Your task to perform on an android device: Open notification settings Image 0: 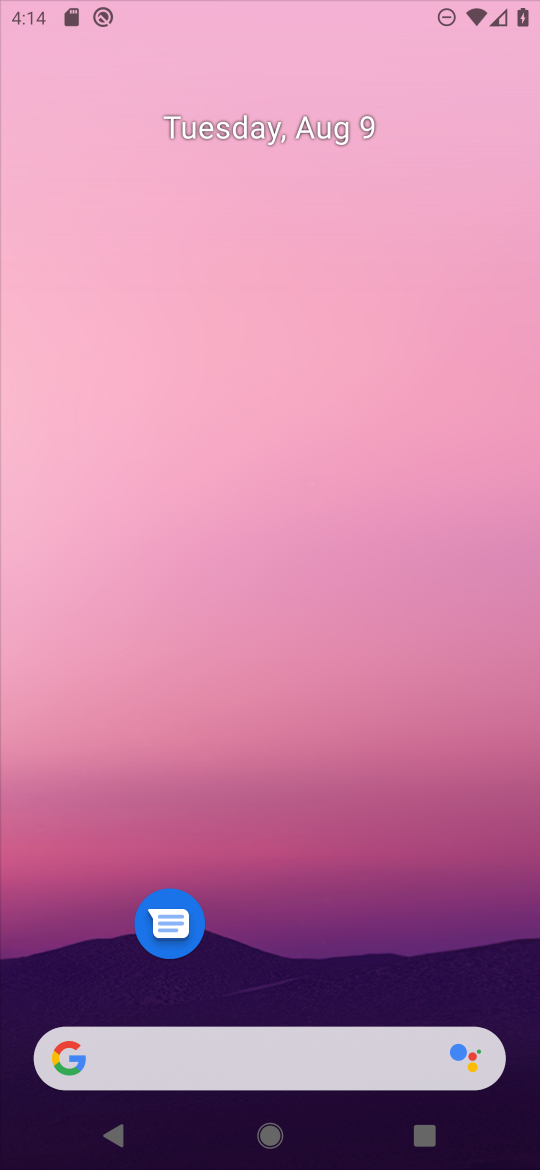
Step 0: drag from (318, 805) to (430, 0)
Your task to perform on an android device: Open notification settings Image 1: 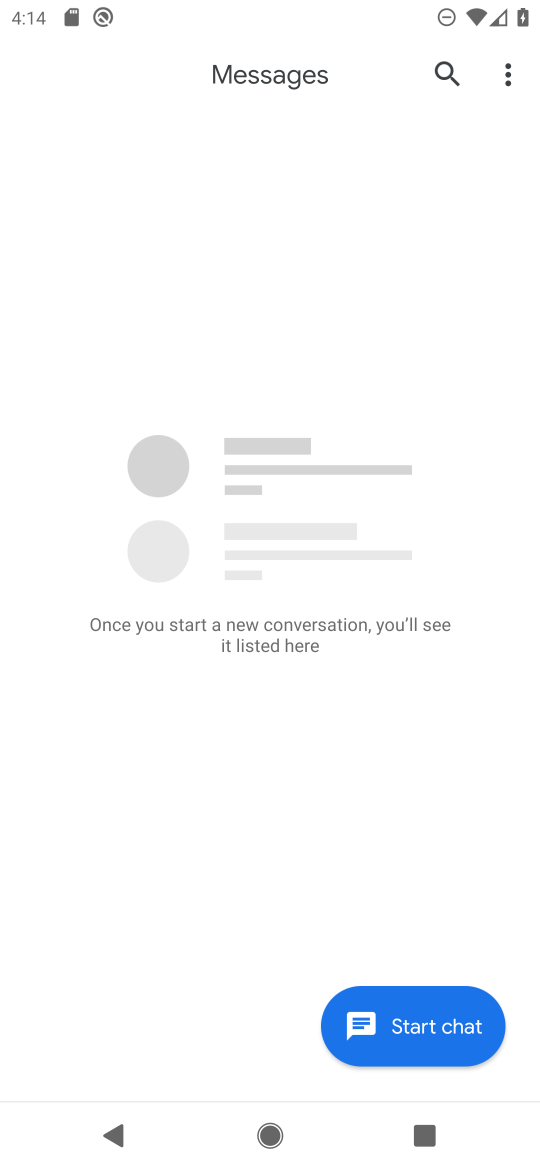
Step 1: press back button
Your task to perform on an android device: Open notification settings Image 2: 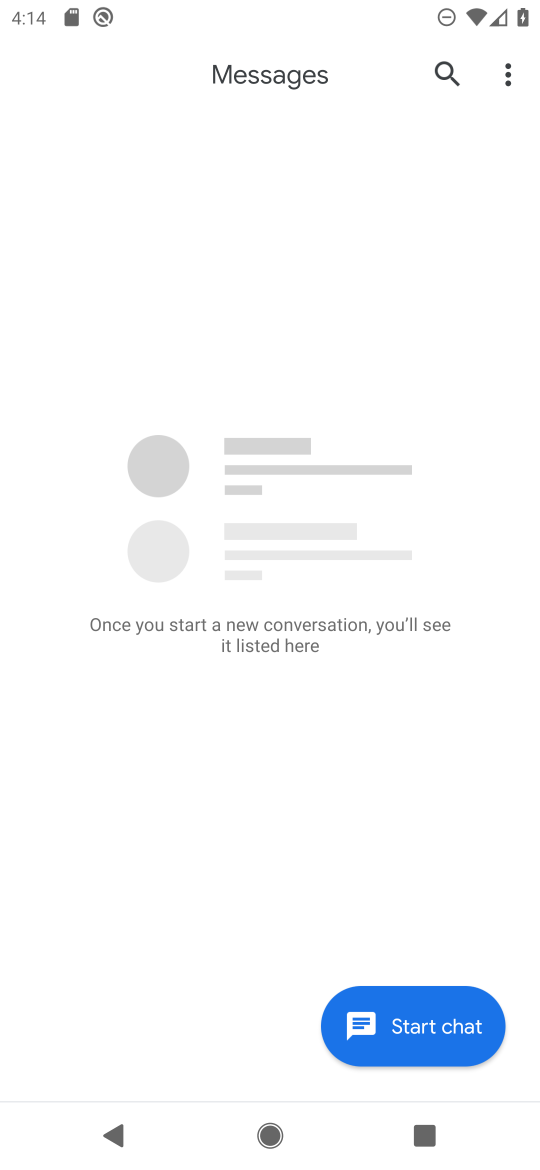
Step 2: drag from (430, 0) to (529, 488)
Your task to perform on an android device: Open notification settings Image 3: 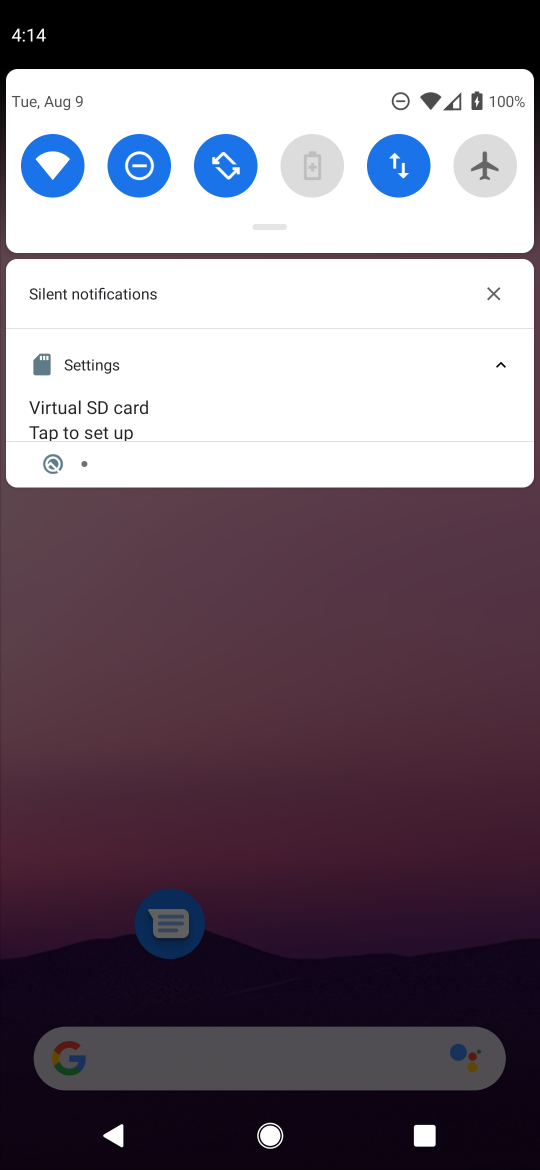
Step 3: drag from (280, 939) to (428, 35)
Your task to perform on an android device: Open notification settings Image 4: 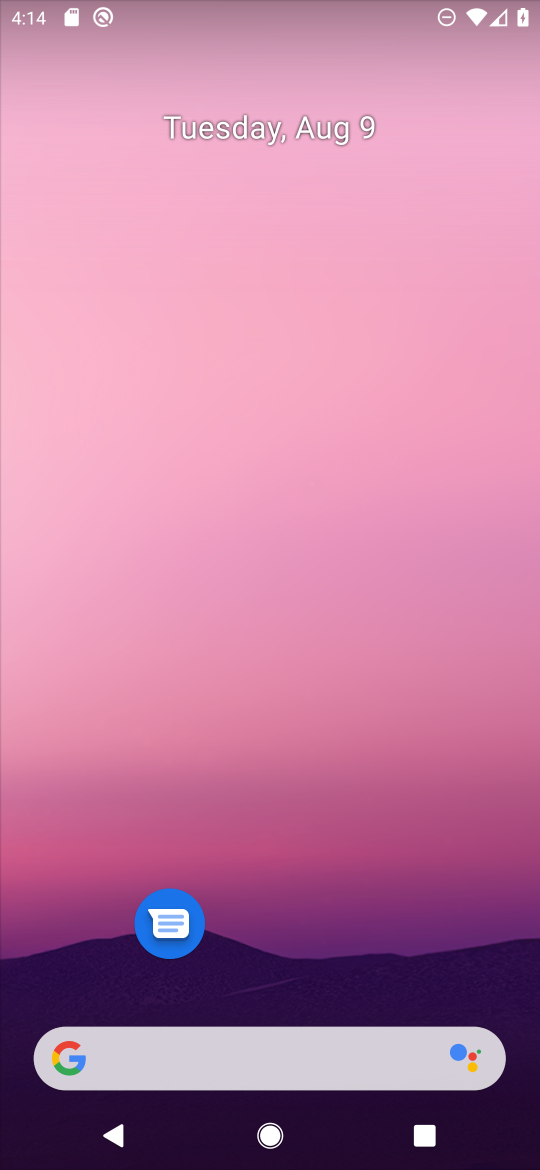
Step 4: drag from (365, 947) to (471, 82)
Your task to perform on an android device: Open notification settings Image 5: 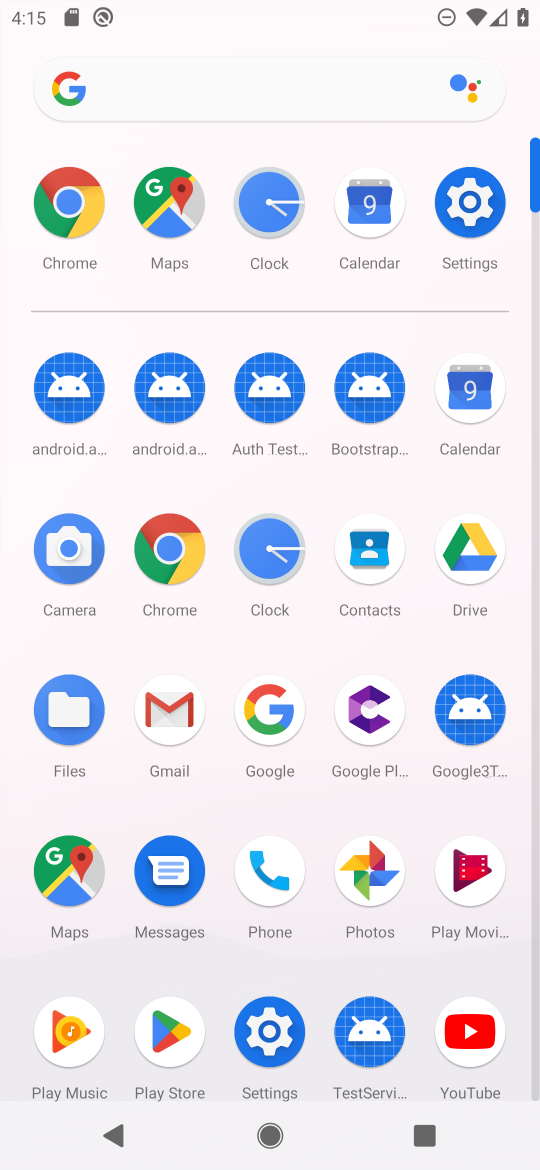
Step 5: click (486, 234)
Your task to perform on an android device: Open notification settings Image 6: 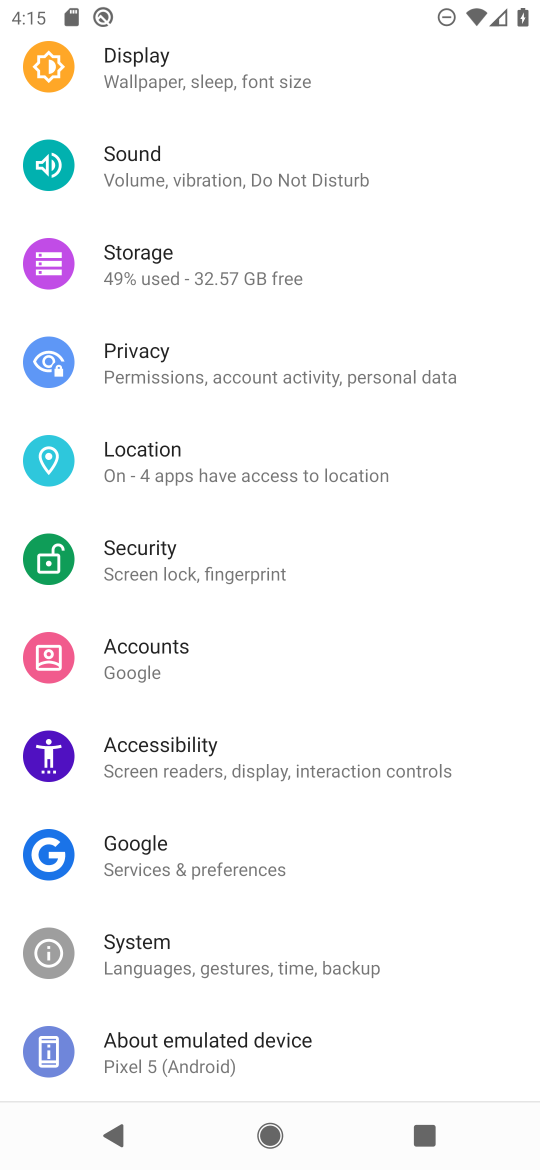
Step 6: drag from (393, 295) to (254, 914)
Your task to perform on an android device: Open notification settings Image 7: 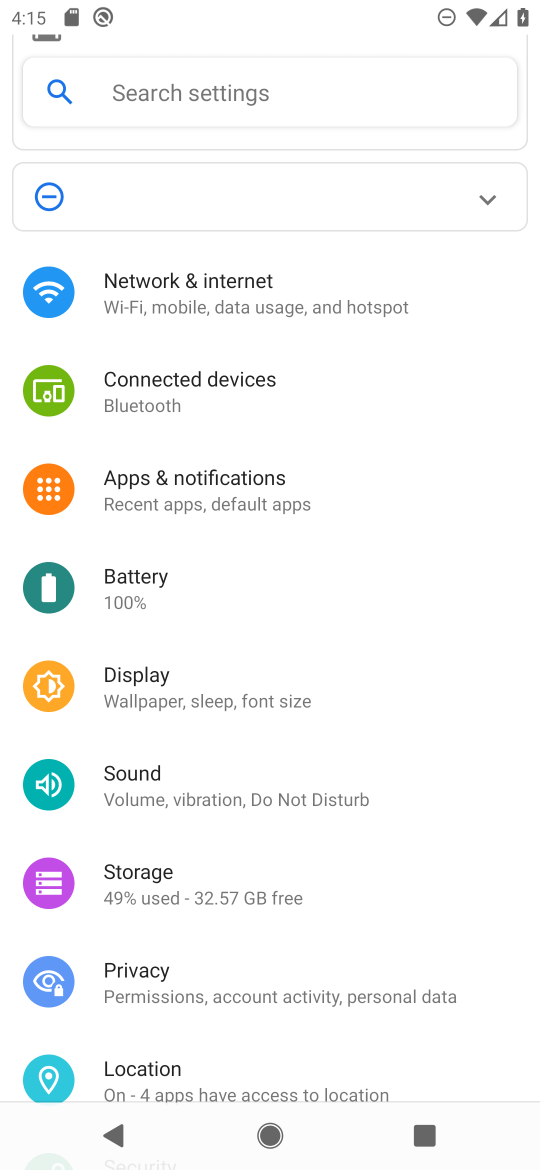
Step 7: click (255, 504)
Your task to perform on an android device: Open notification settings Image 8: 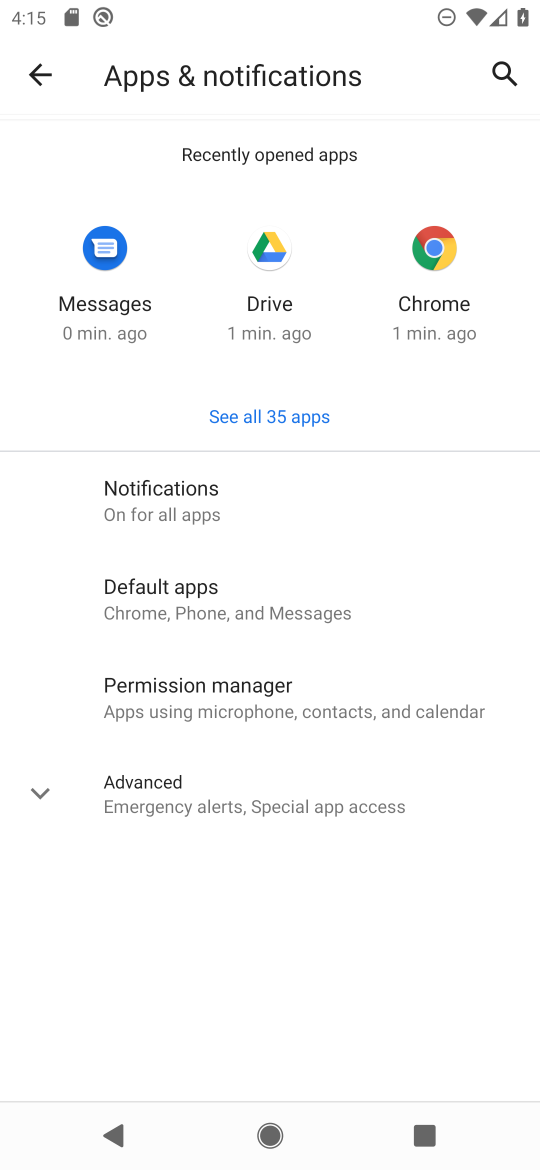
Step 8: click (305, 499)
Your task to perform on an android device: Open notification settings Image 9: 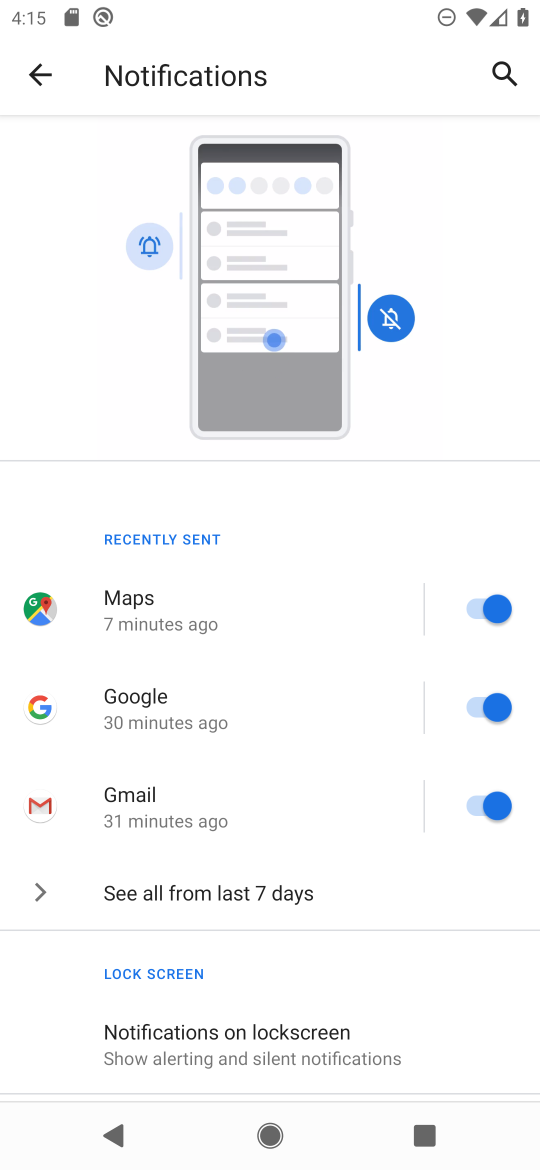
Step 9: task complete